Your task to perform on an android device: Open Yahoo.com Image 0: 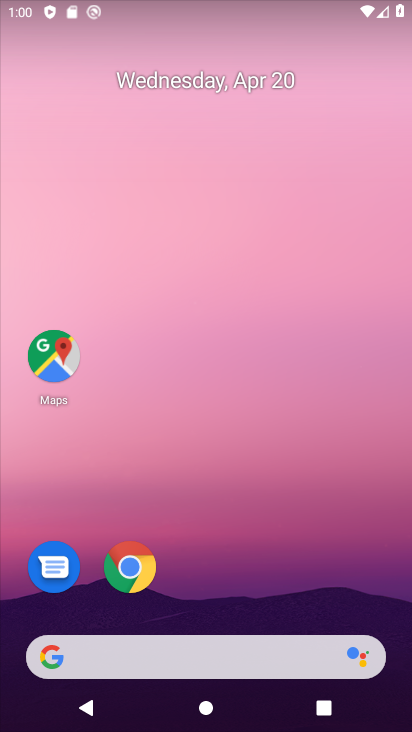
Step 0: drag from (262, 575) to (302, 97)
Your task to perform on an android device: Open Yahoo.com Image 1: 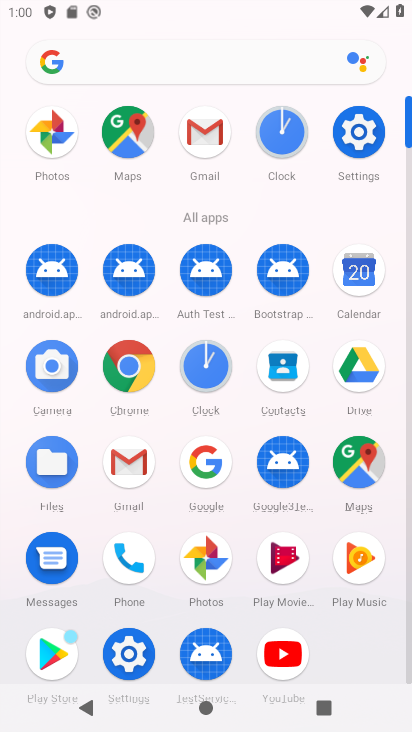
Step 1: click (125, 367)
Your task to perform on an android device: Open Yahoo.com Image 2: 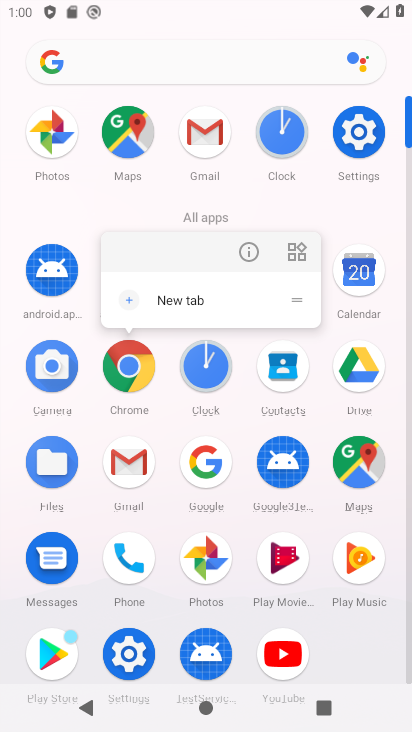
Step 2: click (135, 374)
Your task to perform on an android device: Open Yahoo.com Image 3: 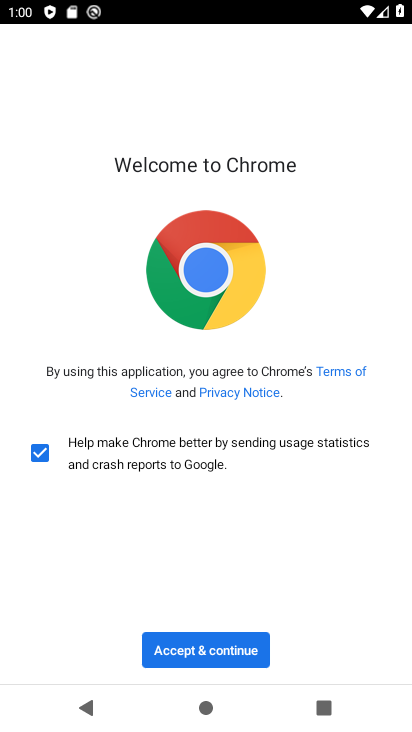
Step 3: click (219, 647)
Your task to perform on an android device: Open Yahoo.com Image 4: 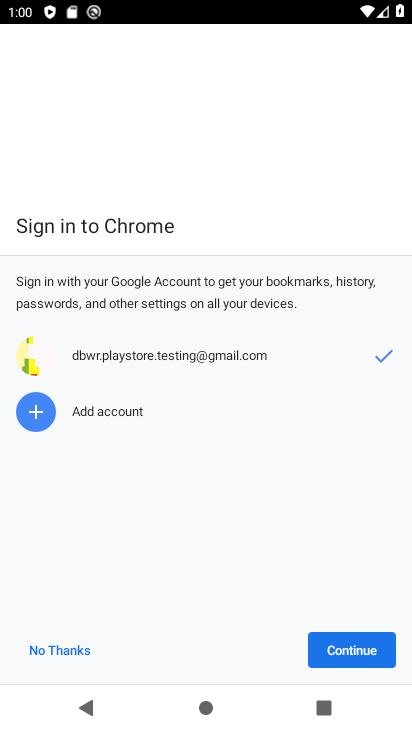
Step 4: click (354, 642)
Your task to perform on an android device: Open Yahoo.com Image 5: 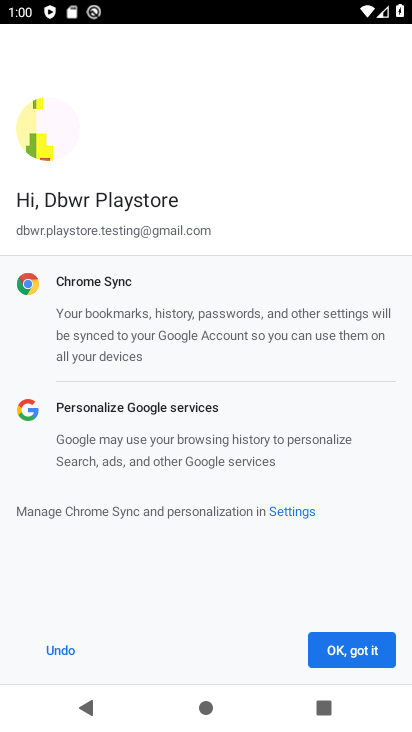
Step 5: click (367, 650)
Your task to perform on an android device: Open Yahoo.com Image 6: 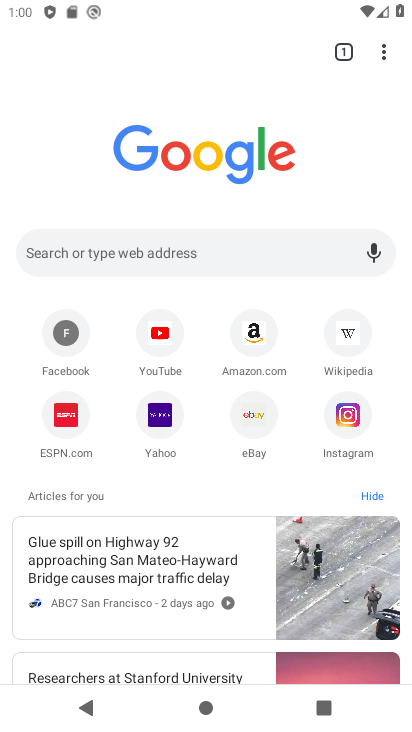
Step 6: click (182, 258)
Your task to perform on an android device: Open Yahoo.com Image 7: 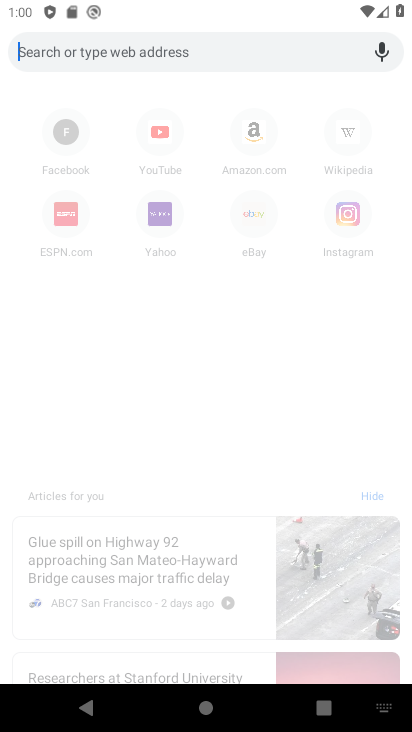
Step 7: type "Yahoo.com"
Your task to perform on an android device: Open Yahoo.com Image 8: 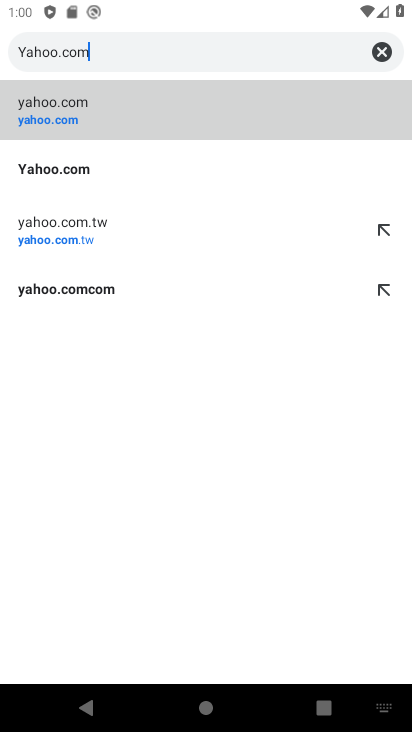
Step 8: click (33, 121)
Your task to perform on an android device: Open Yahoo.com Image 9: 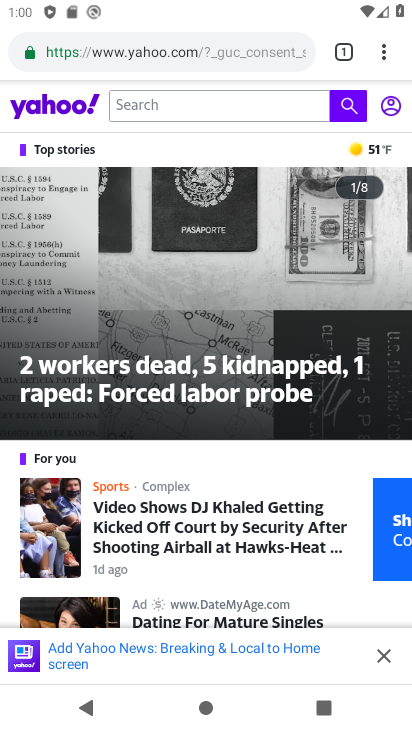
Step 9: task complete